Your task to perform on an android device: turn on priority inbox in the gmail app Image 0: 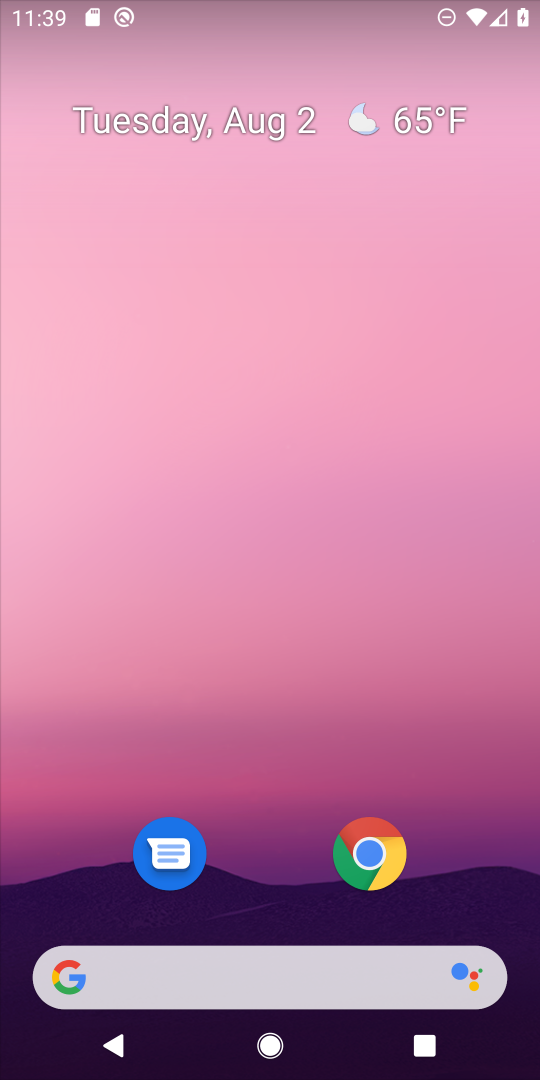
Step 0: press home button
Your task to perform on an android device: turn on priority inbox in the gmail app Image 1: 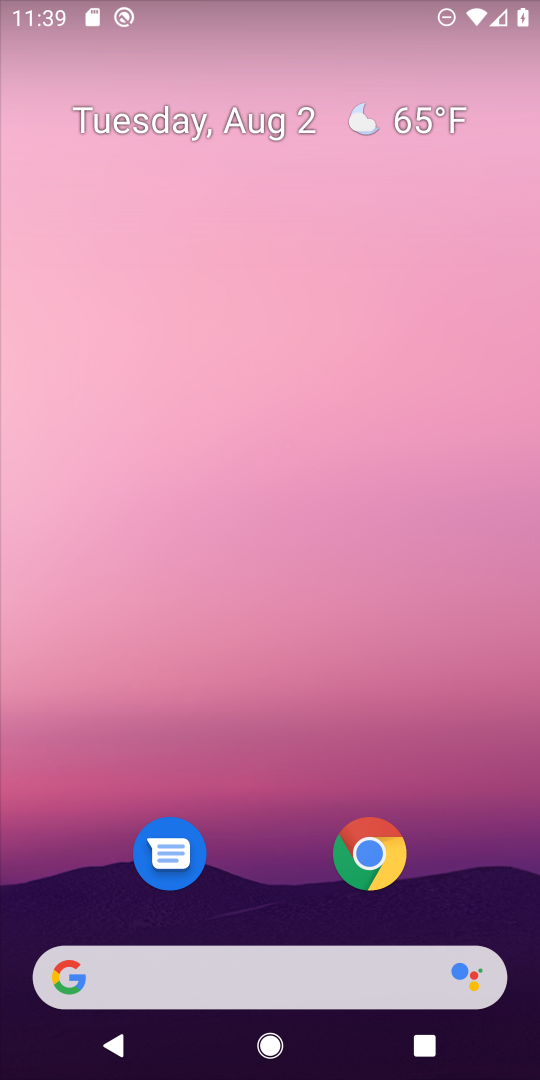
Step 1: click (285, 273)
Your task to perform on an android device: turn on priority inbox in the gmail app Image 2: 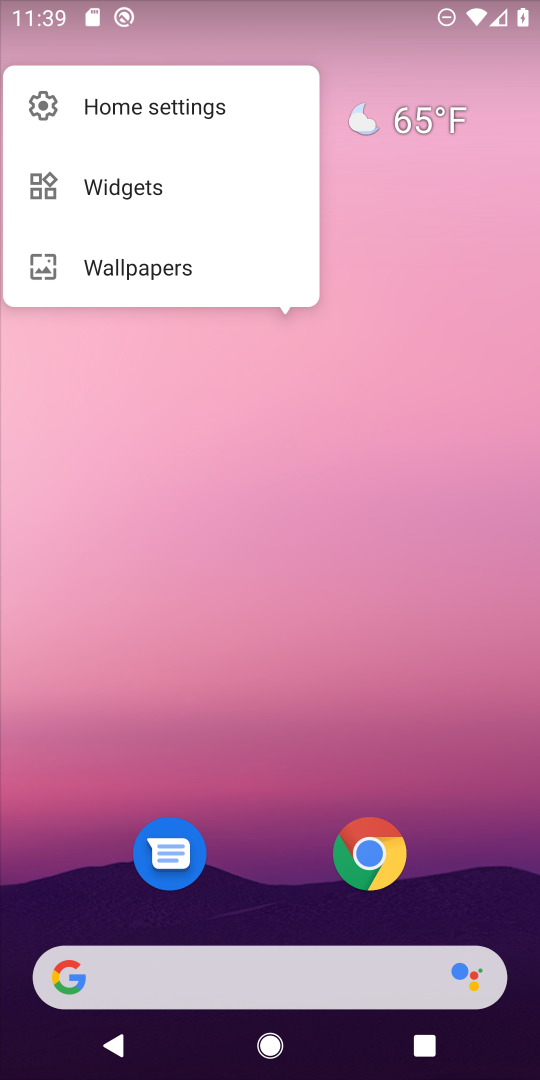
Step 2: drag from (272, 911) to (226, 140)
Your task to perform on an android device: turn on priority inbox in the gmail app Image 3: 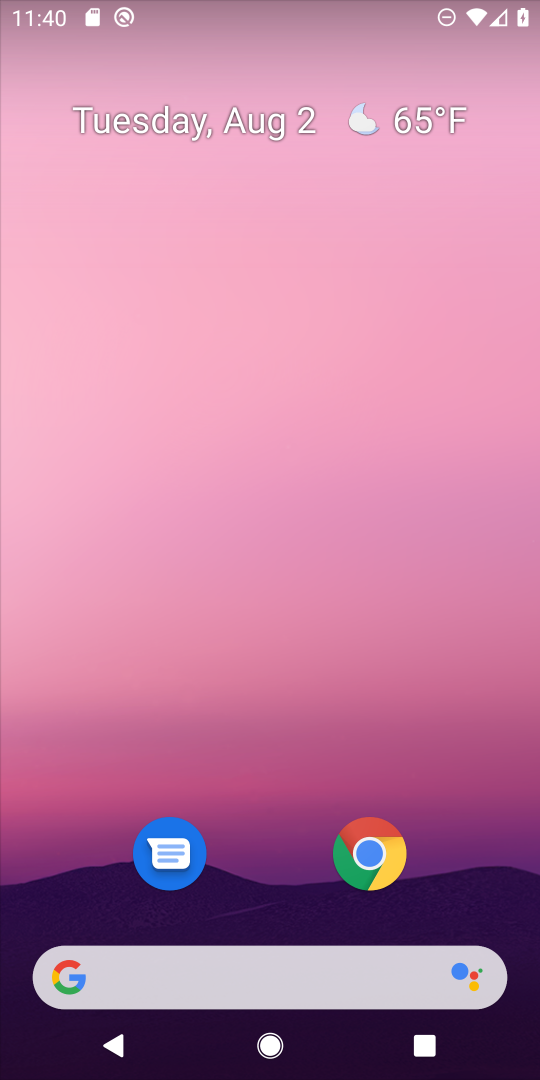
Step 3: drag from (291, 929) to (199, 135)
Your task to perform on an android device: turn on priority inbox in the gmail app Image 4: 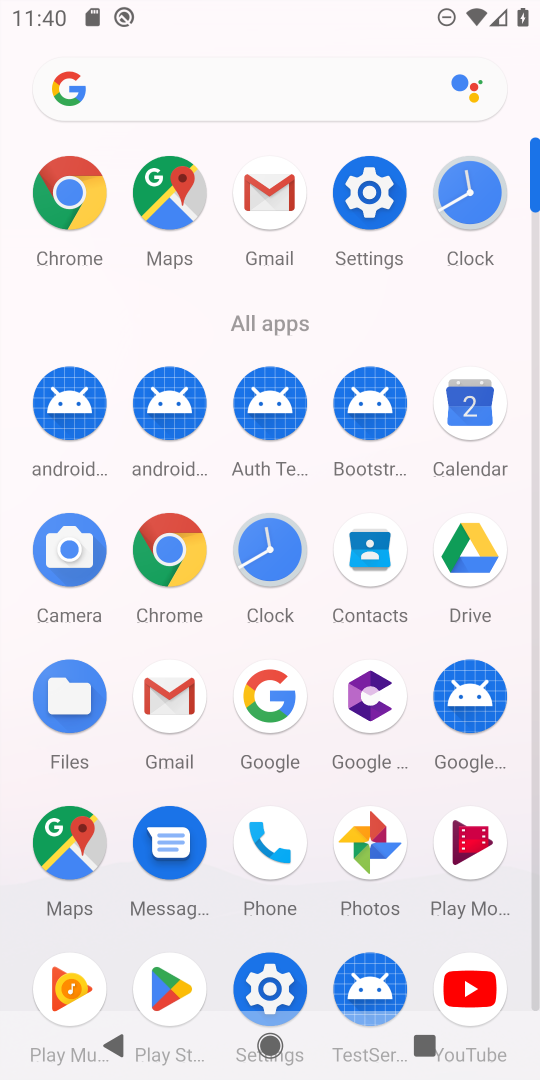
Step 4: click (277, 209)
Your task to perform on an android device: turn on priority inbox in the gmail app Image 5: 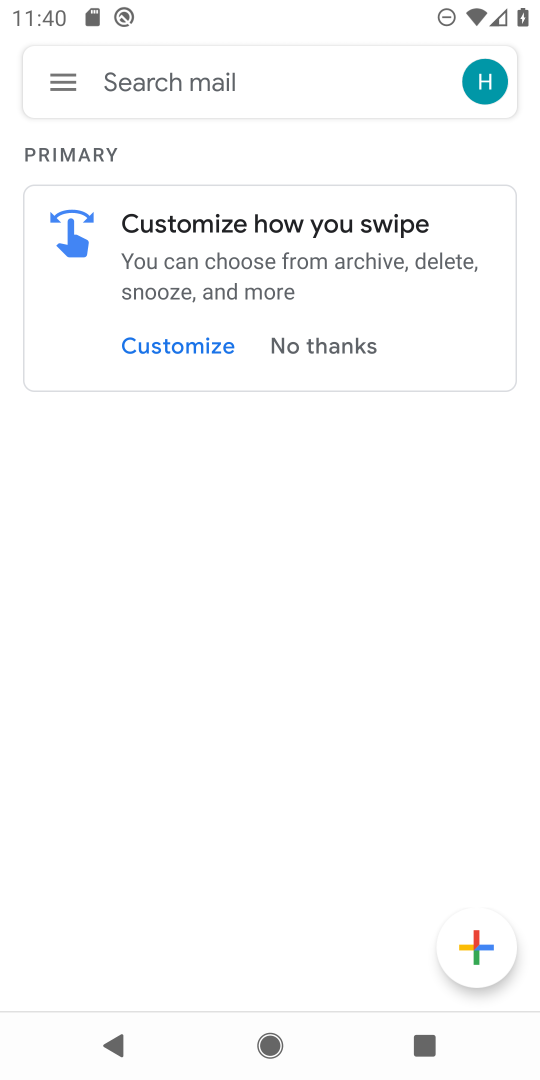
Step 5: click (69, 106)
Your task to perform on an android device: turn on priority inbox in the gmail app Image 6: 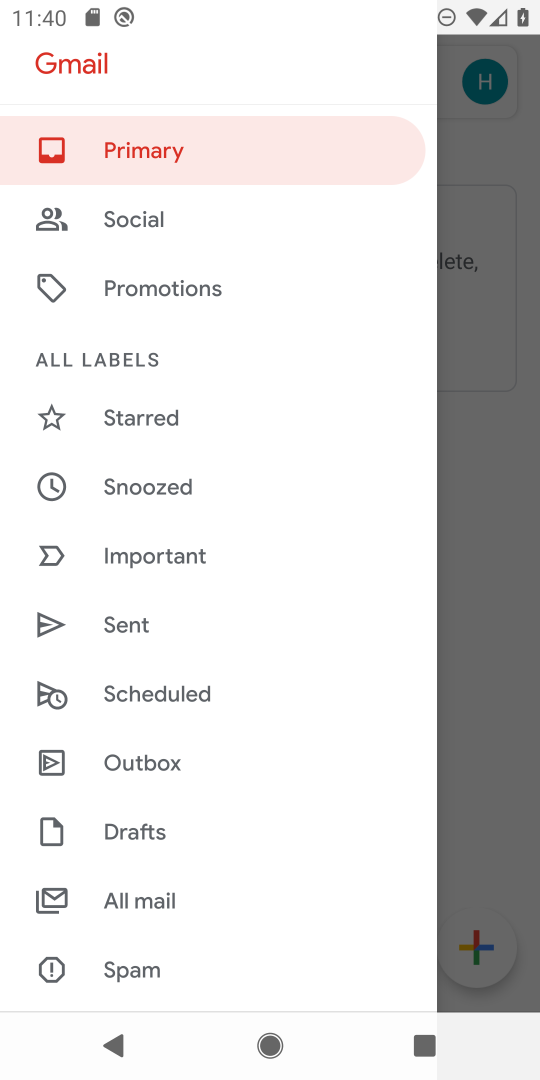
Step 6: drag from (208, 908) to (149, 220)
Your task to perform on an android device: turn on priority inbox in the gmail app Image 7: 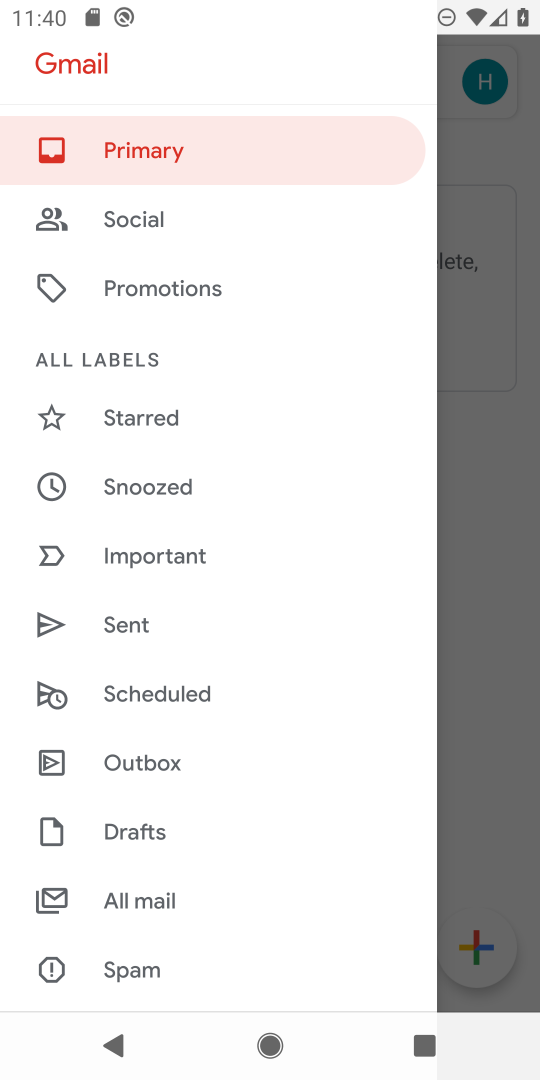
Step 7: drag from (183, 900) to (135, 136)
Your task to perform on an android device: turn on priority inbox in the gmail app Image 8: 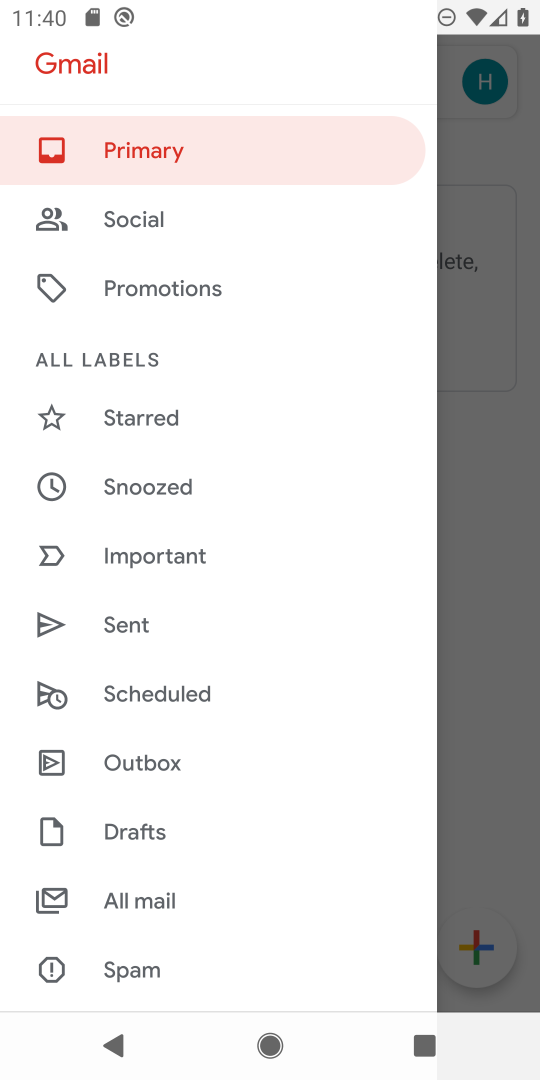
Step 8: drag from (116, 923) to (226, 110)
Your task to perform on an android device: turn on priority inbox in the gmail app Image 9: 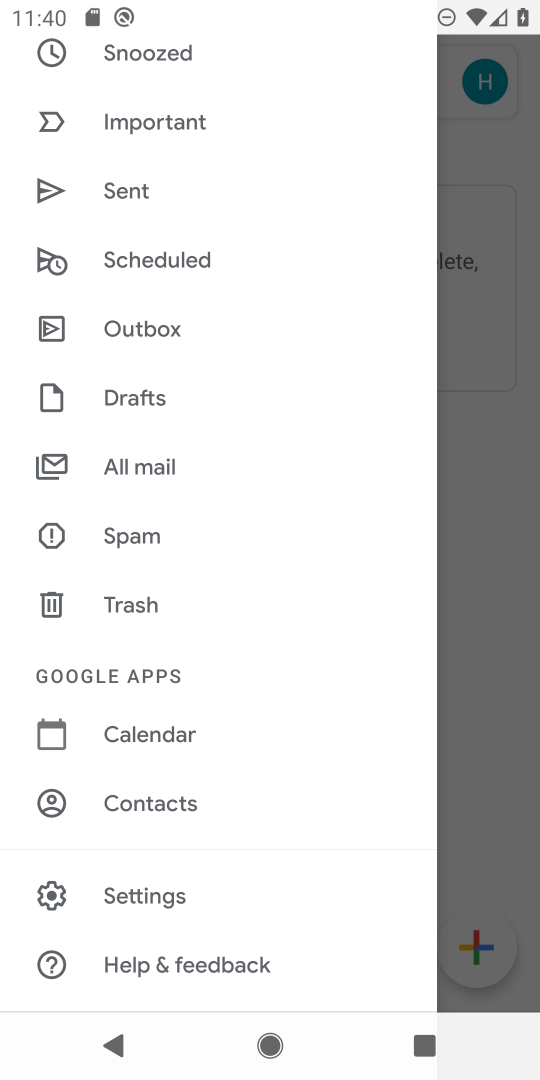
Step 9: click (186, 905)
Your task to perform on an android device: turn on priority inbox in the gmail app Image 10: 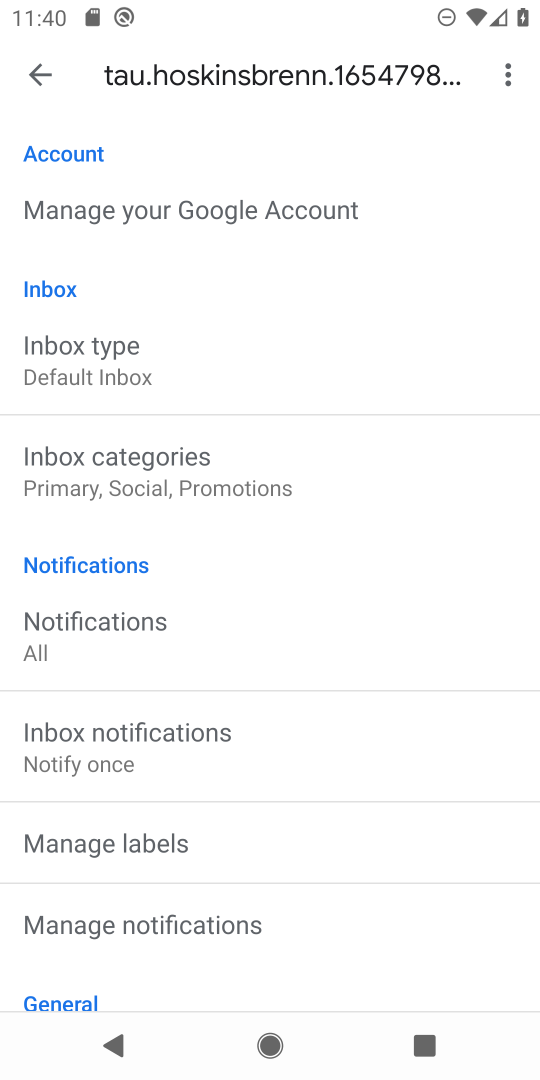
Step 10: click (49, 370)
Your task to perform on an android device: turn on priority inbox in the gmail app Image 11: 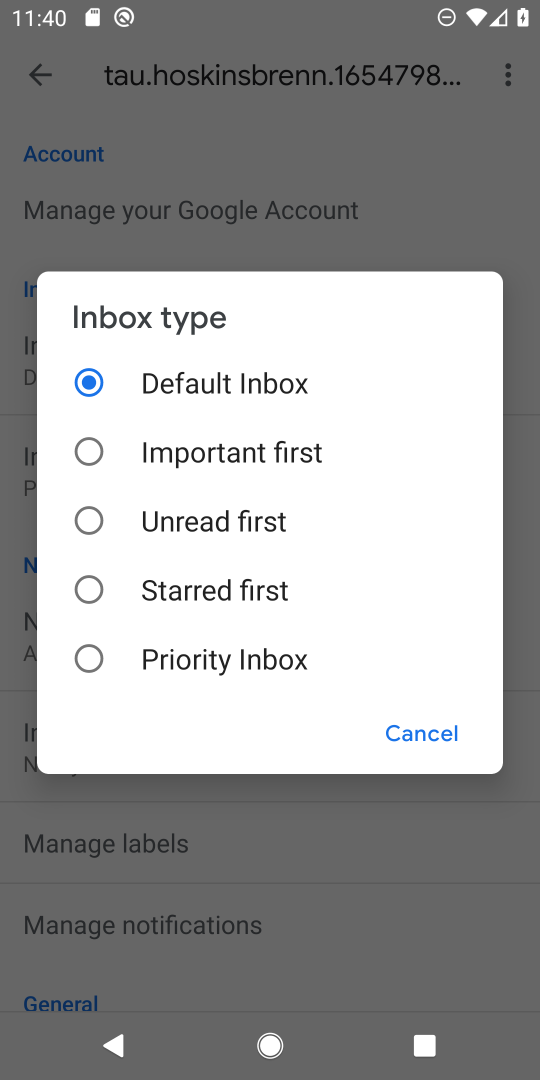
Step 11: click (162, 683)
Your task to perform on an android device: turn on priority inbox in the gmail app Image 12: 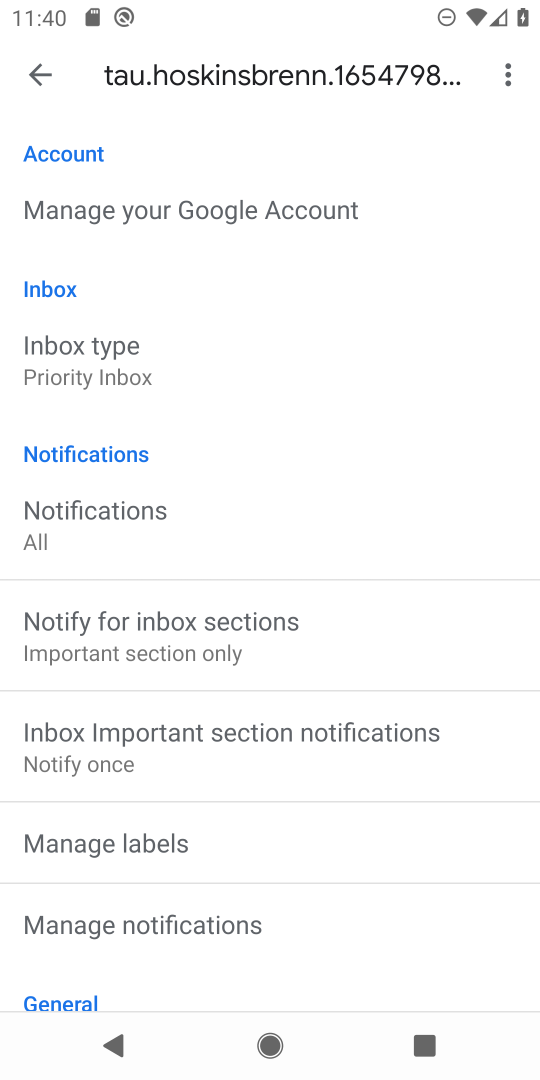
Step 12: task complete